Your task to perform on an android device: Open battery settings Image 0: 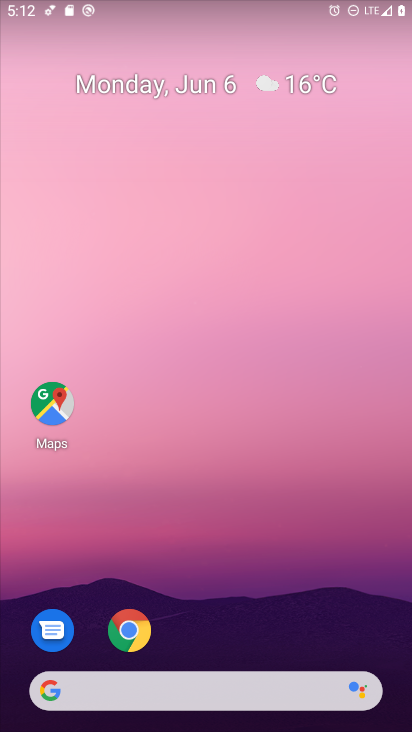
Step 0: drag from (286, 618) to (79, 52)
Your task to perform on an android device: Open battery settings Image 1: 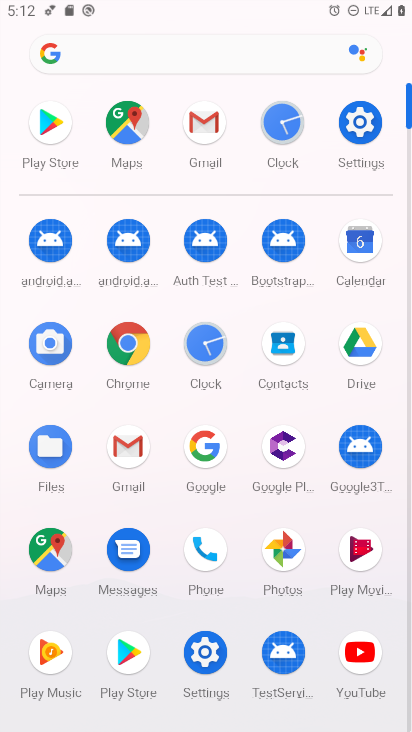
Step 1: click (372, 141)
Your task to perform on an android device: Open battery settings Image 2: 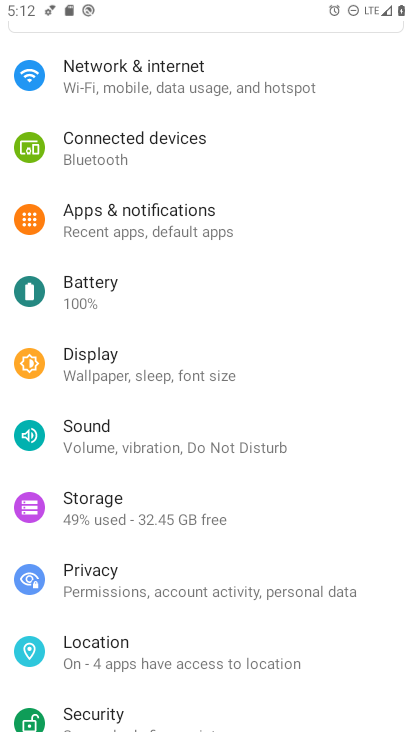
Step 2: click (117, 297)
Your task to perform on an android device: Open battery settings Image 3: 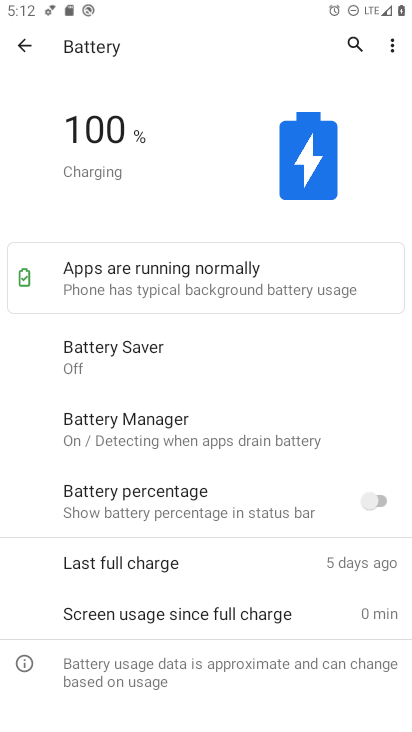
Step 3: task complete